Your task to perform on an android device: open device folders in google photos Image 0: 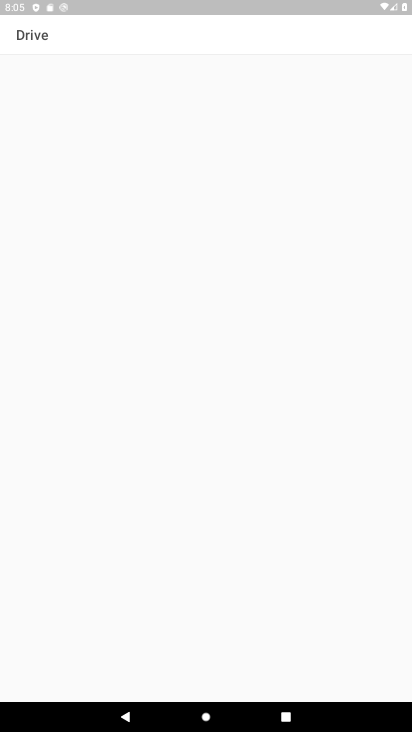
Step 0: press home button
Your task to perform on an android device: open device folders in google photos Image 1: 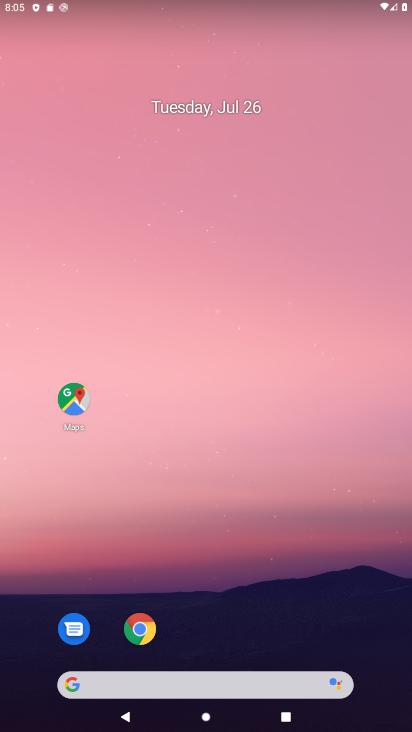
Step 1: drag from (194, 649) to (126, 45)
Your task to perform on an android device: open device folders in google photos Image 2: 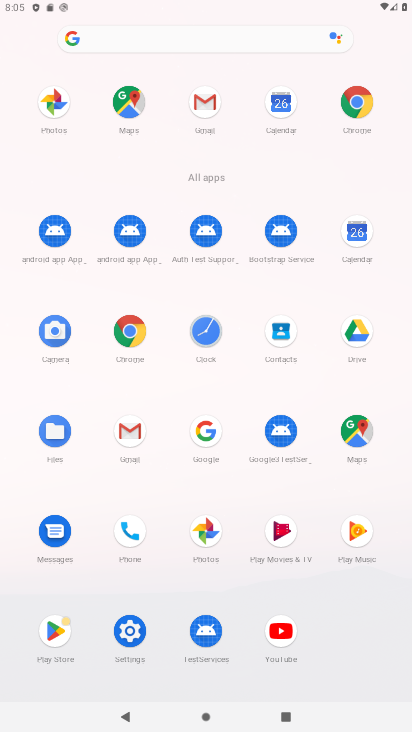
Step 2: click (205, 528)
Your task to perform on an android device: open device folders in google photos Image 3: 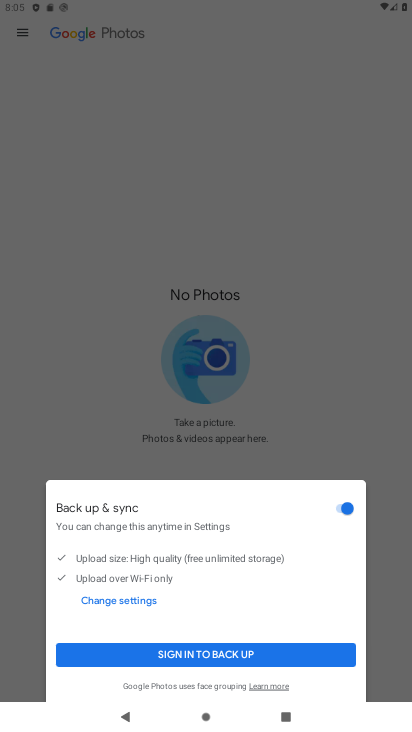
Step 3: click (263, 650)
Your task to perform on an android device: open device folders in google photos Image 4: 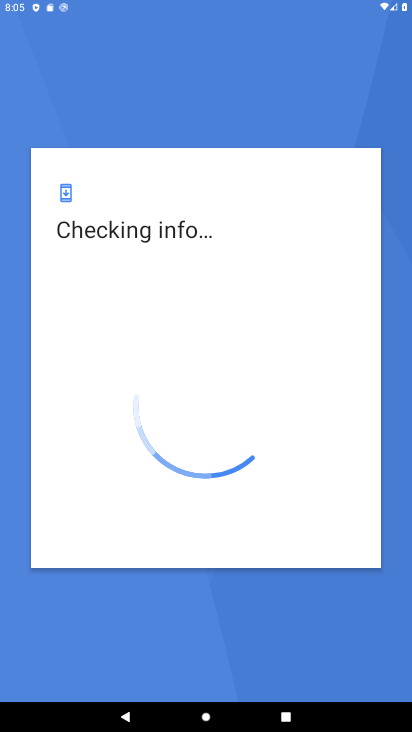
Step 4: task complete